Your task to perform on an android device: Open Maps and search for coffee Image 0: 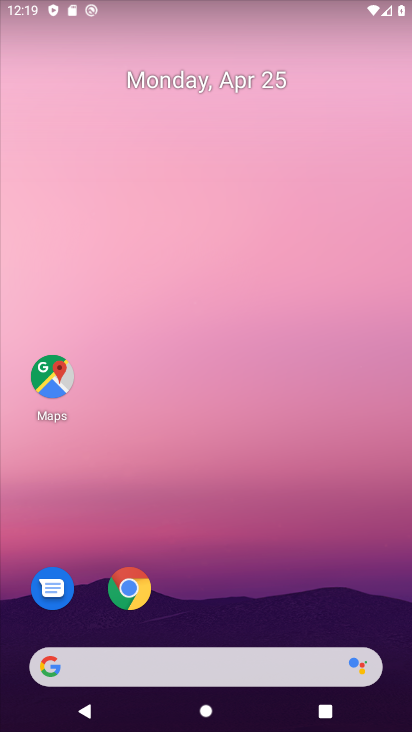
Step 0: click (56, 376)
Your task to perform on an android device: Open Maps and search for coffee Image 1: 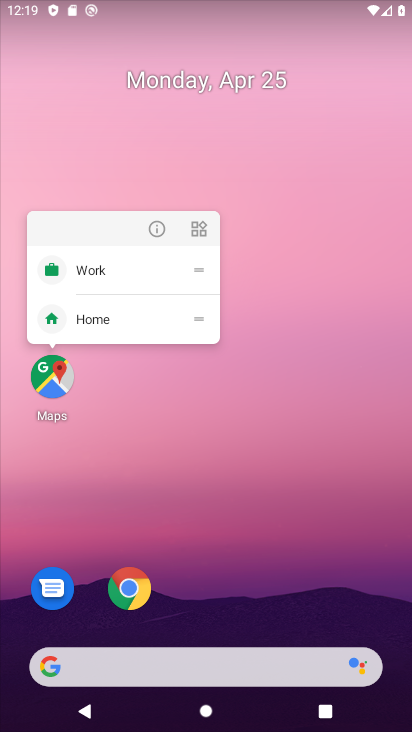
Step 1: click (50, 388)
Your task to perform on an android device: Open Maps and search for coffee Image 2: 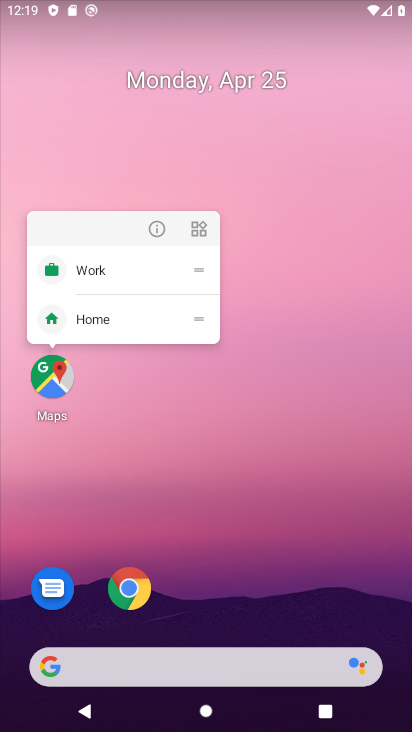
Step 2: click (59, 378)
Your task to perform on an android device: Open Maps and search for coffee Image 3: 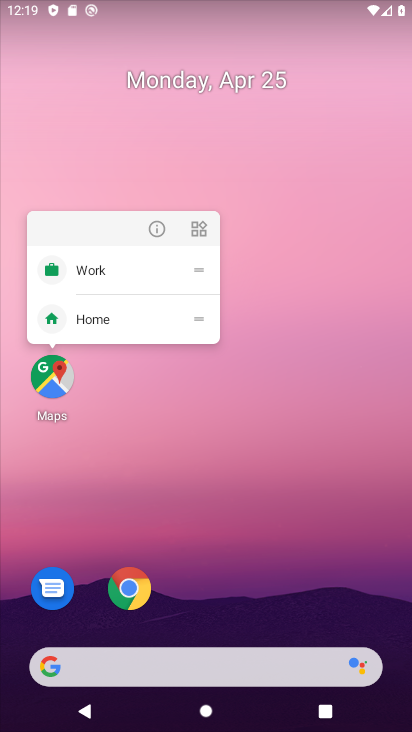
Step 3: click (59, 378)
Your task to perform on an android device: Open Maps and search for coffee Image 4: 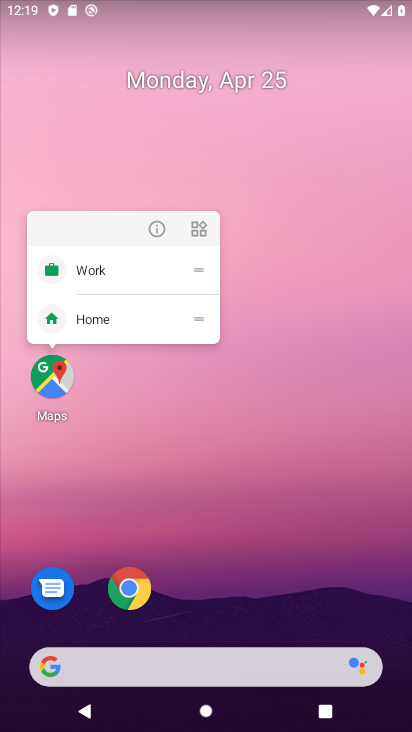
Step 4: click (55, 370)
Your task to perform on an android device: Open Maps and search for coffee Image 5: 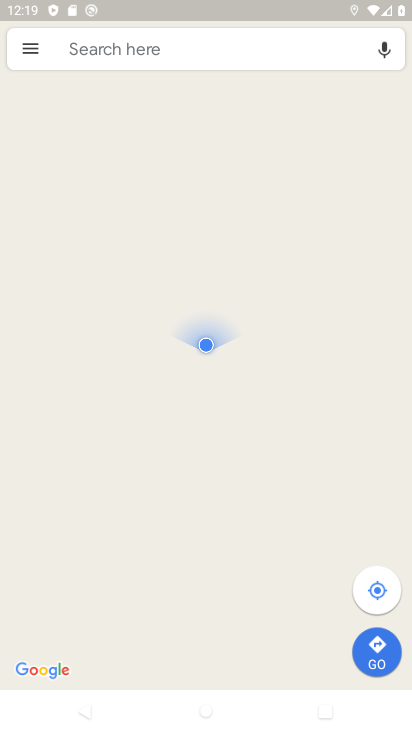
Step 5: click (207, 49)
Your task to perform on an android device: Open Maps and search for coffee Image 6: 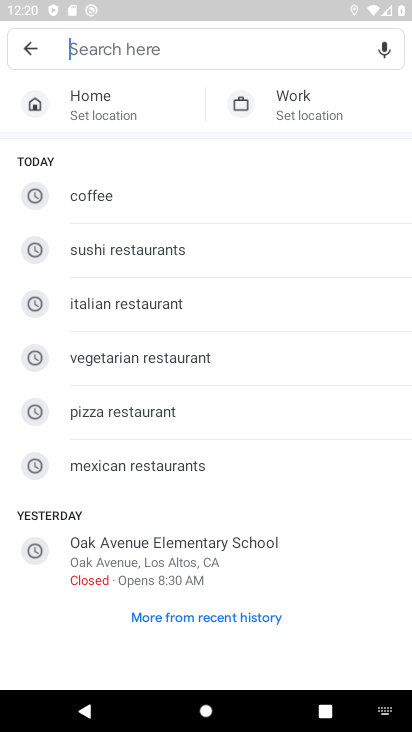
Step 6: type "coffee "
Your task to perform on an android device: Open Maps and search for coffee Image 7: 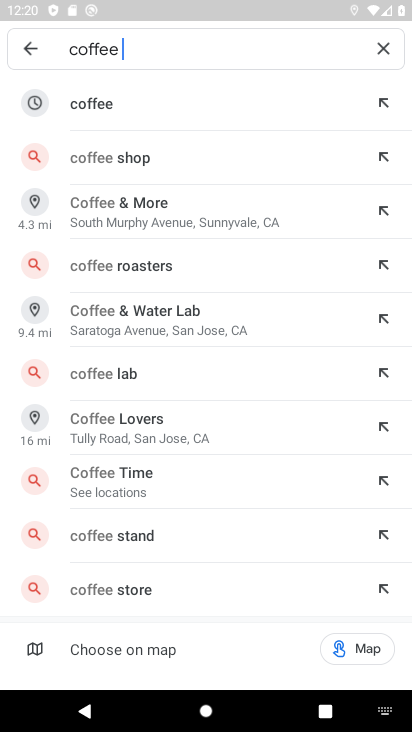
Step 7: click (230, 108)
Your task to perform on an android device: Open Maps and search for coffee Image 8: 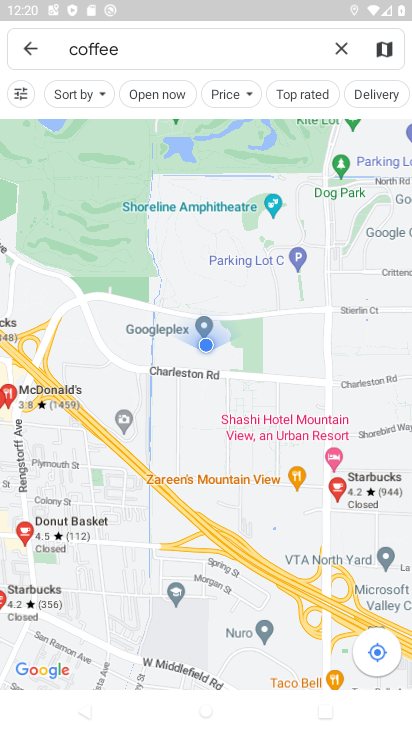
Step 8: click (304, 460)
Your task to perform on an android device: Open Maps and search for coffee Image 9: 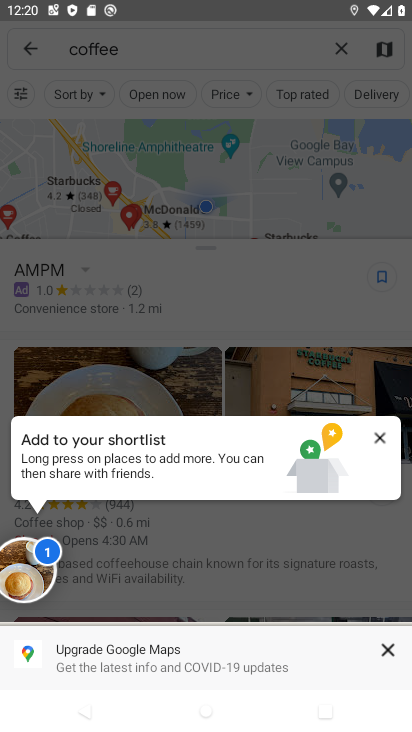
Step 9: click (399, 652)
Your task to perform on an android device: Open Maps and search for coffee Image 10: 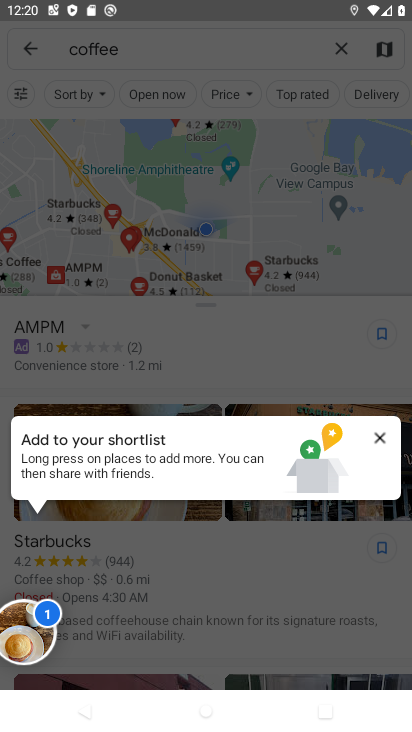
Step 10: task complete